Your task to perform on an android device: Turn off the flashlight Image 0: 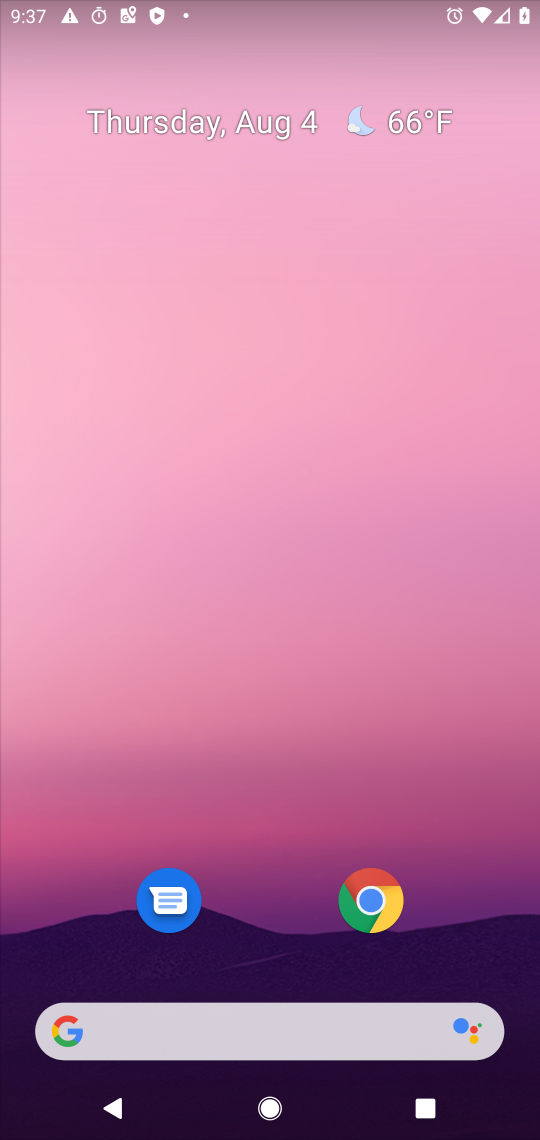
Step 0: drag from (261, 992) to (366, 375)
Your task to perform on an android device: Turn off the flashlight Image 1: 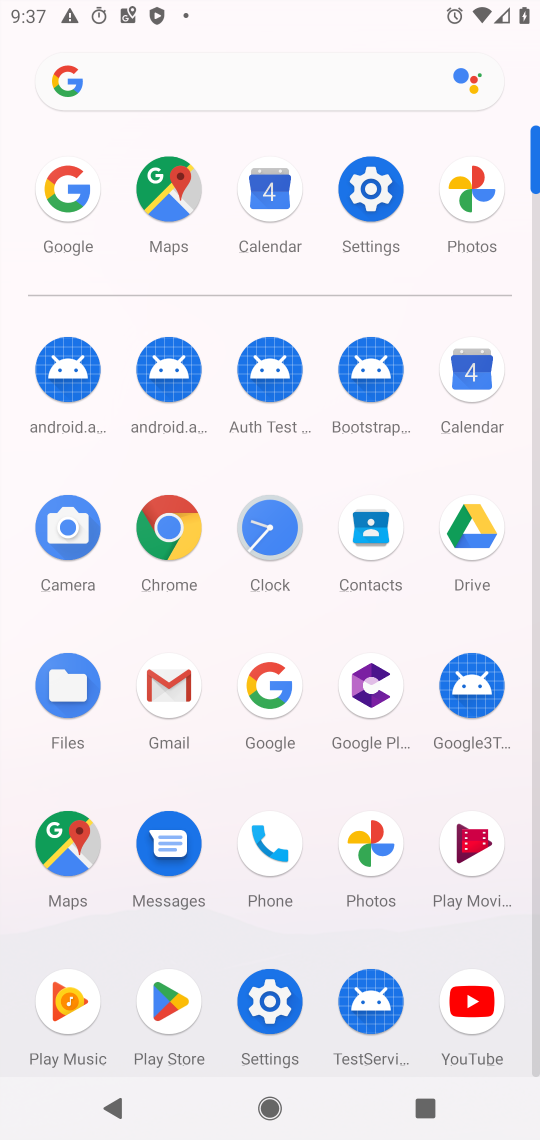
Step 1: click (371, 193)
Your task to perform on an android device: Turn off the flashlight Image 2: 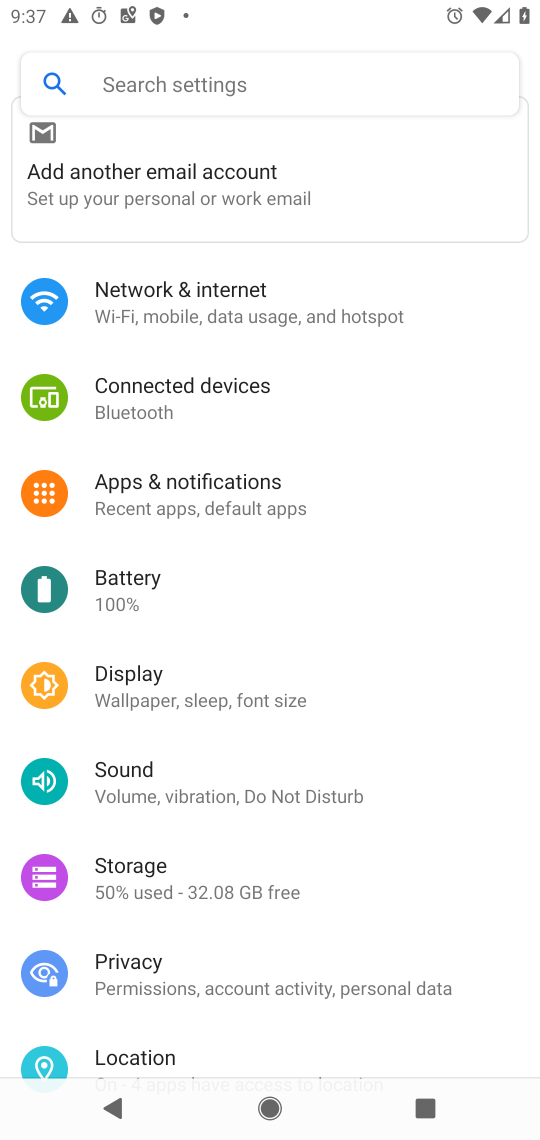
Step 2: click (196, 700)
Your task to perform on an android device: Turn off the flashlight Image 3: 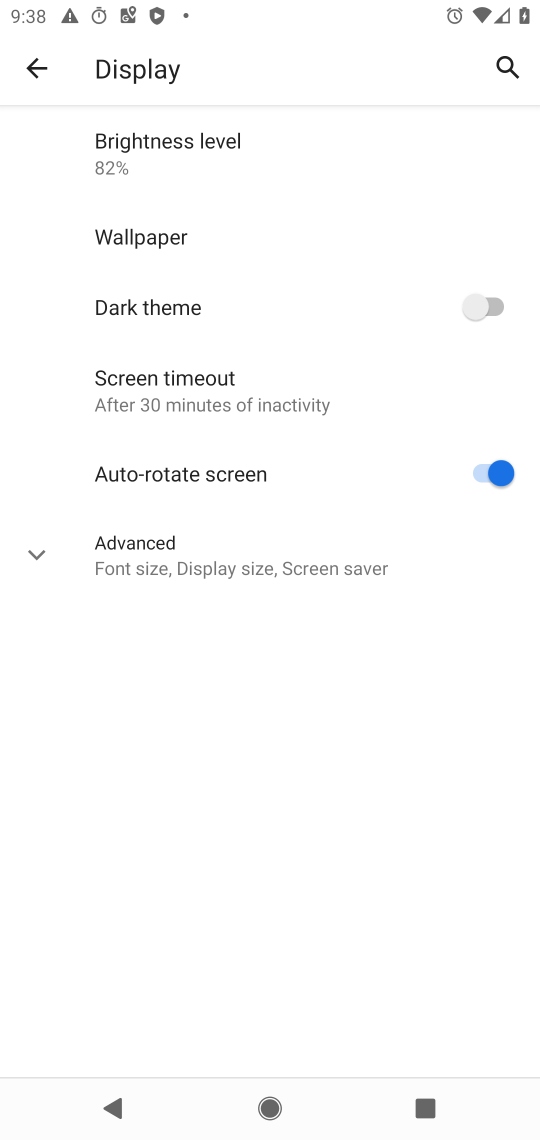
Step 3: click (289, 569)
Your task to perform on an android device: Turn off the flashlight Image 4: 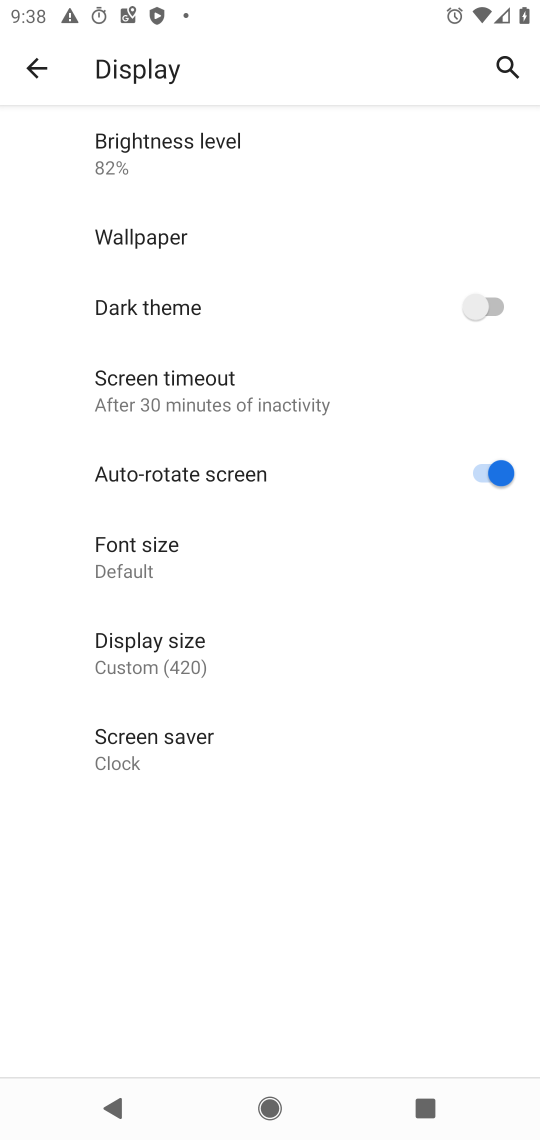
Step 4: click (183, 387)
Your task to perform on an android device: Turn off the flashlight Image 5: 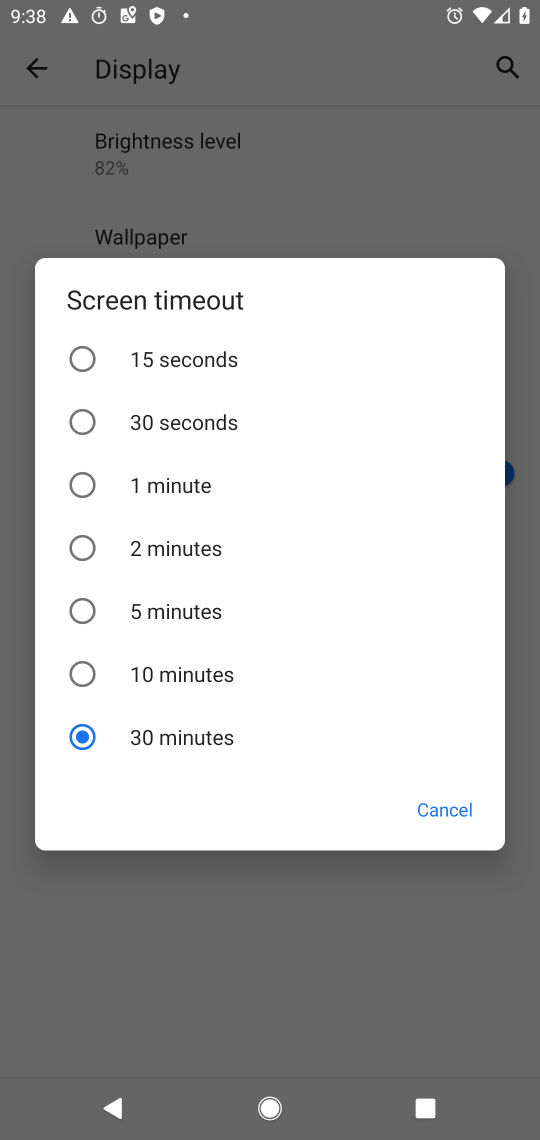
Step 5: click (452, 812)
Your task to perform on an android device: Turn off the flashlight Image 6: 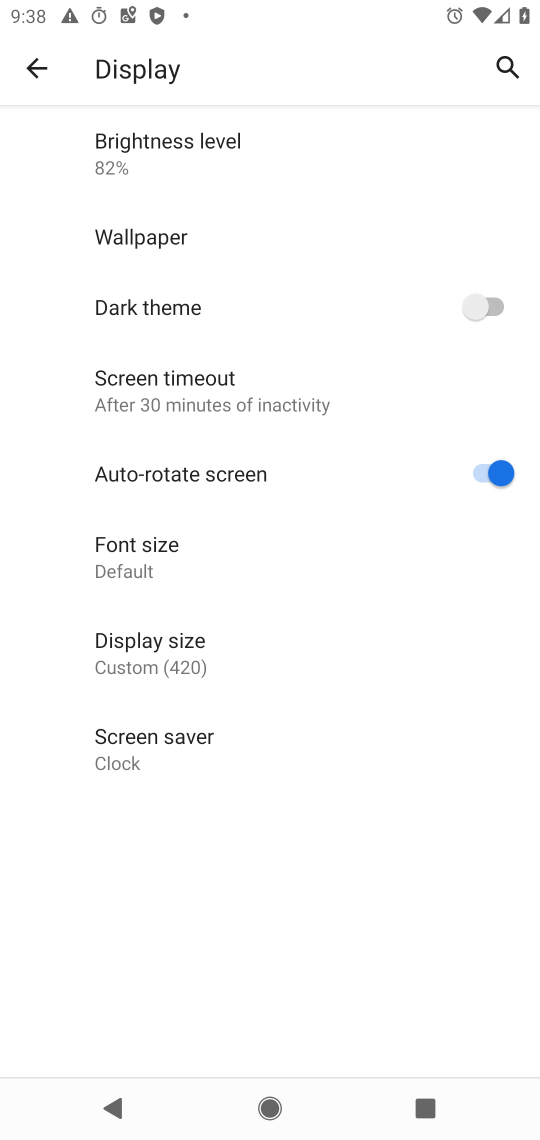
Step 6: task complete